Your task to perform on an android device: toggle location history Image 0: 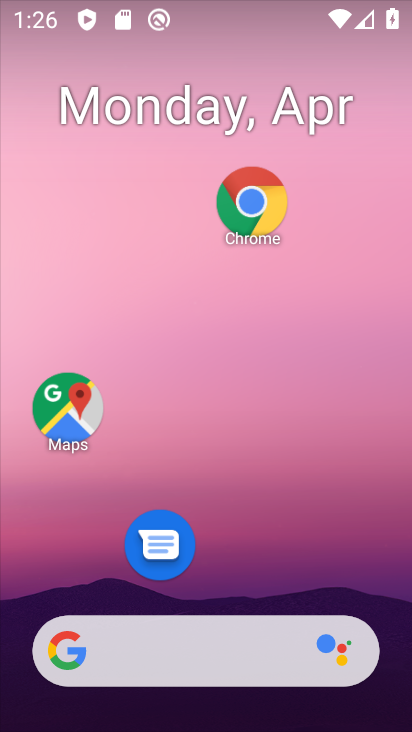
Step 0: drag from (95, 596) to (161, 208)
Your task to perform on an android device: toggle location history Image 1: 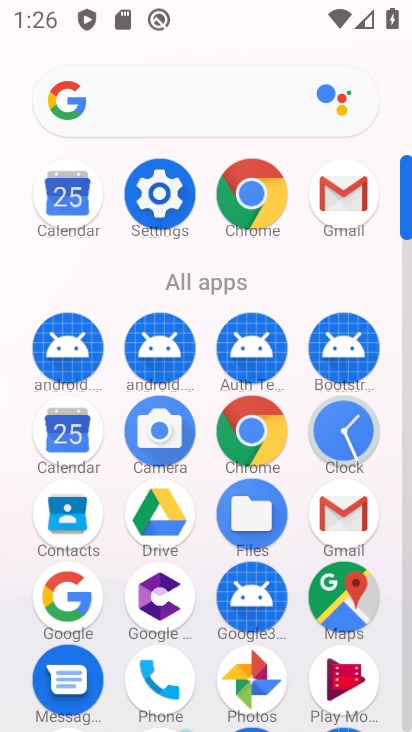
Step 1: click (160, 195)
Your task to perform on an android device: toggle location history Image 2: 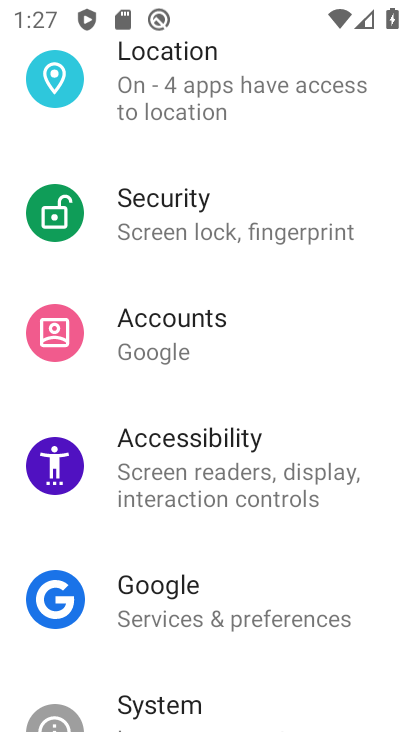
Step 2: drag from (108, 655) to (251, 299)
Your task to perform on an android device: toggle location history Image 3: 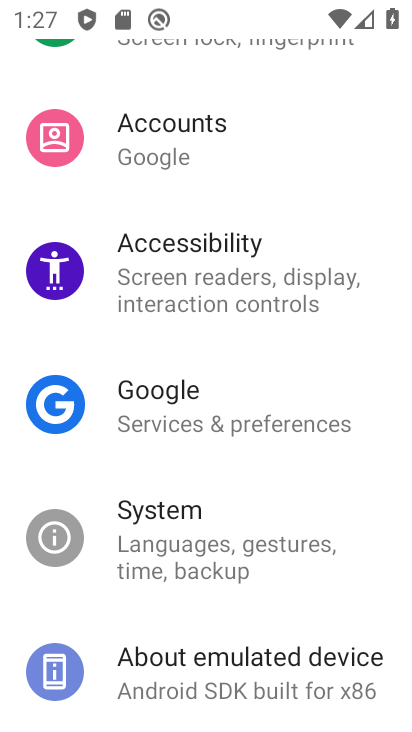
Step 3: drag from (179, 644) to (255, 342)
Your task to perform on an android device: toggle location history Image 4: 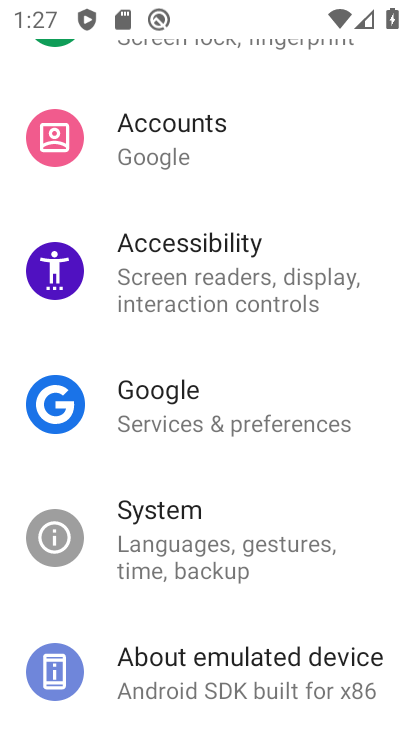
Step 4: drag from (189, 585) to (293, 129)
Your task to perform on an android device: toggle location history Image 5: 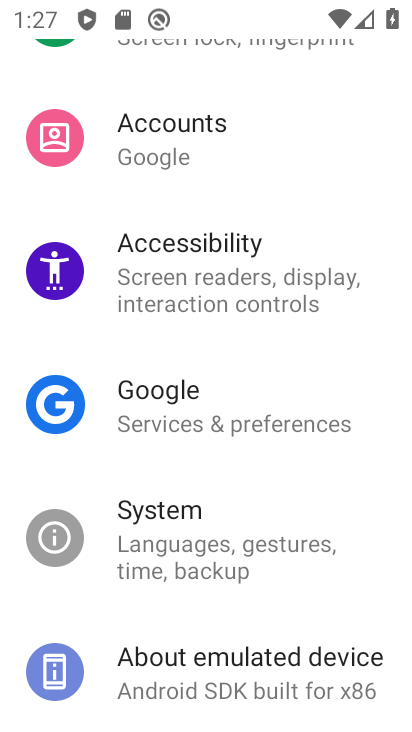
Step 5: drag from (202, 185) to (130, 638)
Your task to perform on an android device: toggle location history Image 6: 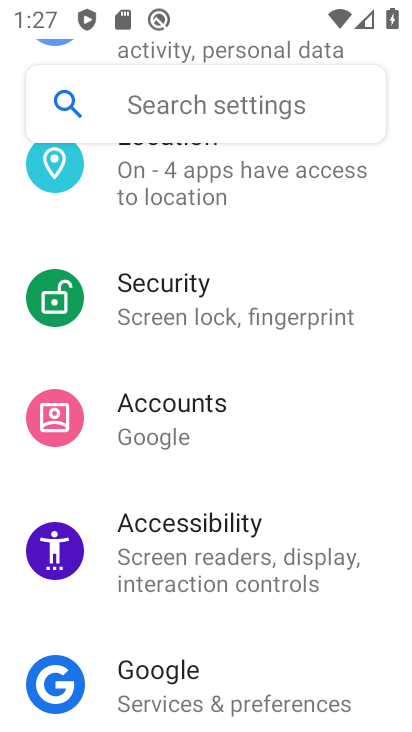
Step 6: drag from (151, 250) to (174, 659)
Your task to perform on an android device: toggle location history Image 7: 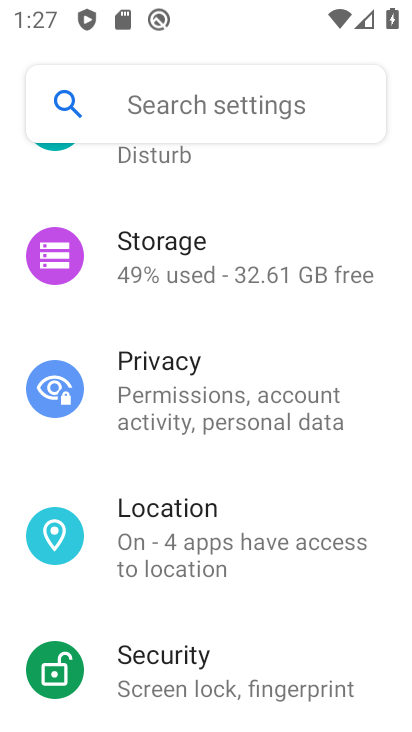
Step 7: click (206, 558)
Your task to perform on an android device: toggle location history Image 8: 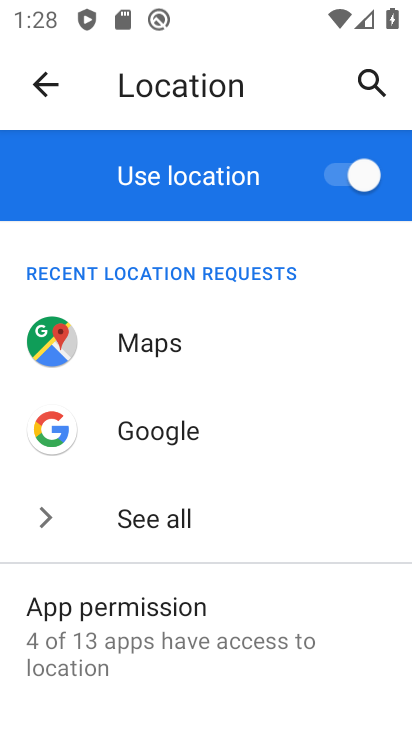
Step 8: drag from (167, 632) to (260, 129)
Your task to perform on an android device: toggle location history Image 9: 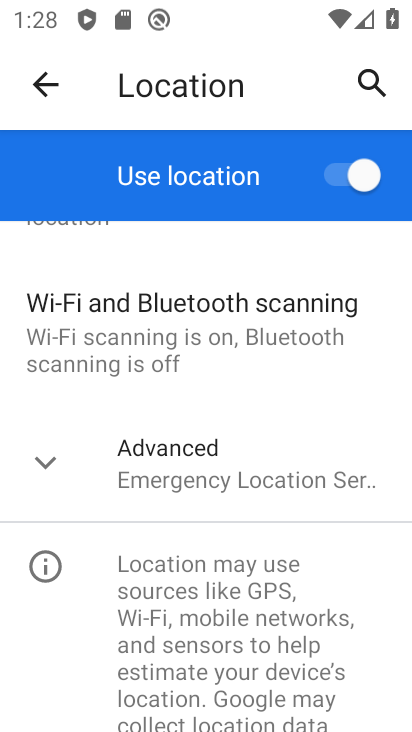
Step 9: drag from (155, 666) to (176, 237)
Your task to perform on an android device: toggle location history Image 10: 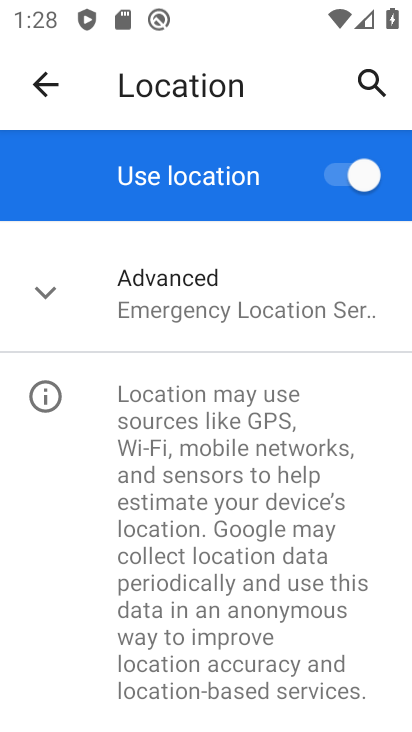
Step 10: click (200, 297)
Your task to perform on an android device: toggle location history Image 11: 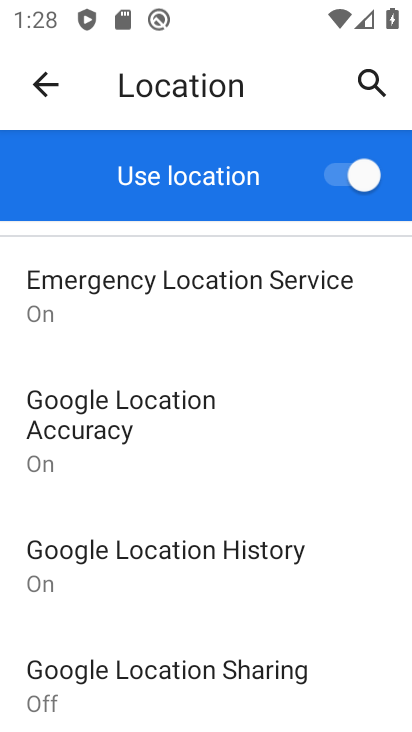
Step 11: click (124, 565)
Your task to perform on an android device: toggle location history Image 12: 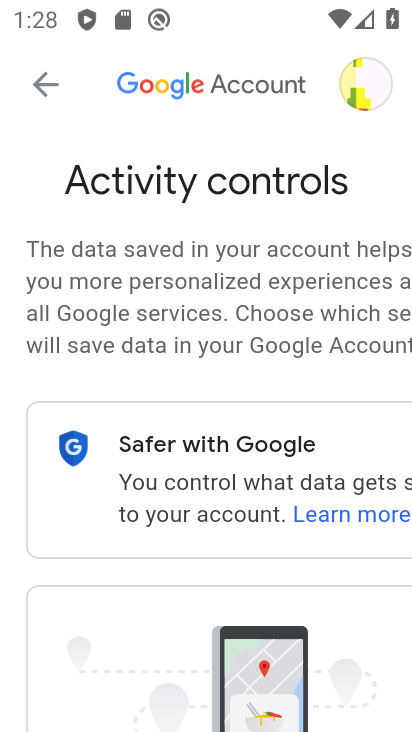
Step 12: drag from (117, 644) to (219, 133)
Your task to perform on an android device: toggle location history Image 13: 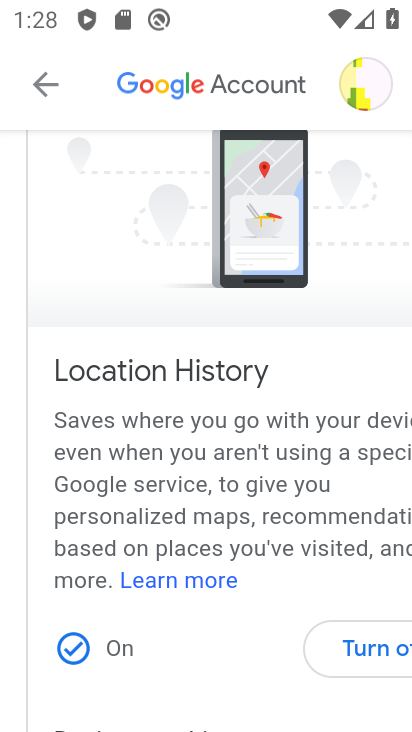
Step 13: drag from (157, 594) to (198, 120)
Your task to perform on an android device: toggle location history Image 14: 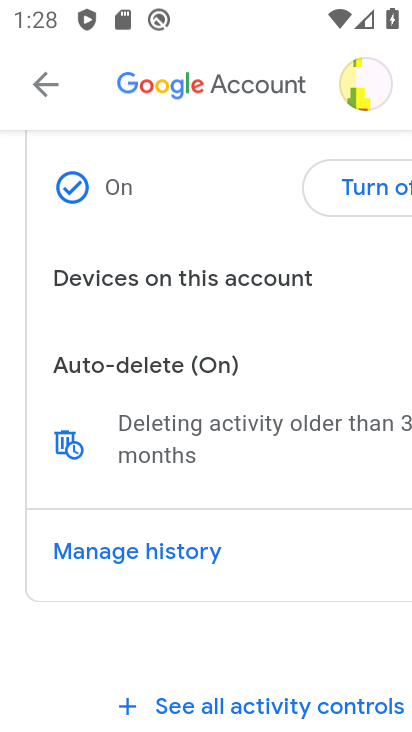
Step 14: click (363, 191)
Your task to perform on an android device: toggle location history Image 15: 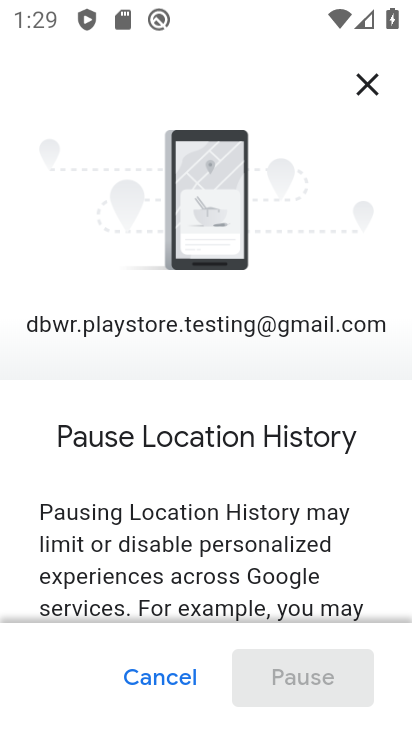
Step 15: drag from (119, 603) to (271, 1)
Your task to perform on an android device: toggle location history Image 16: 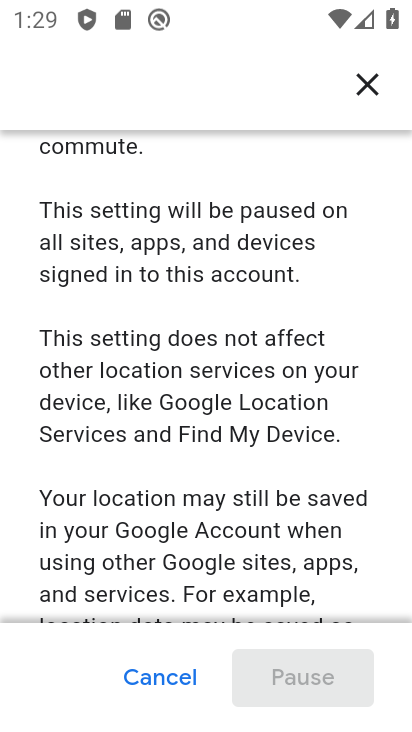
Step 16: drag from (227, 461) to (278, 59)
Your task to perform on an android device: toggle location history Image 17: 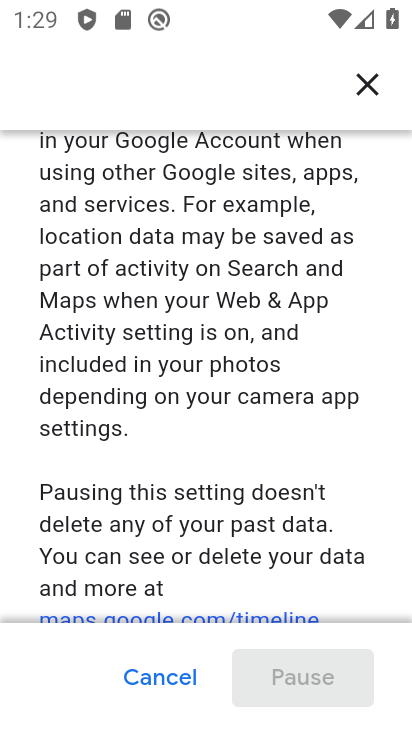
Step 17: drag from (268, 365) to (272, 96)
Your task to perform on an android device: toggle location history Image 18: 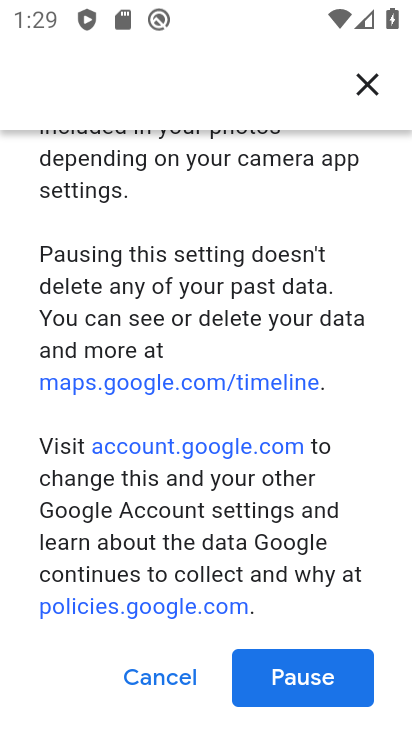
Step 18: click (279, 646)
Your task to perform on an android device: toggle location history Image 19: 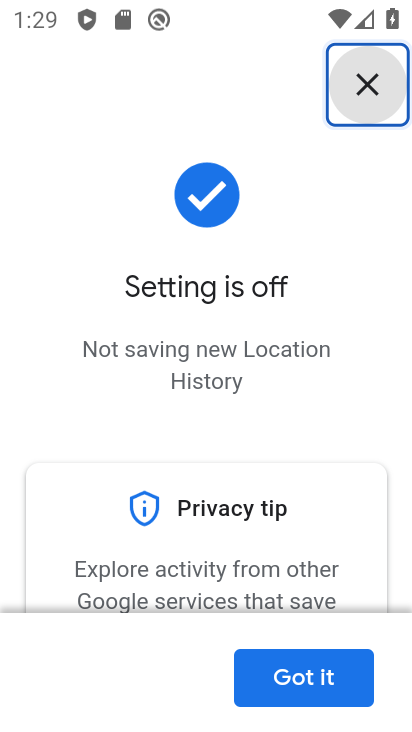
Step 19: click (337, 666)
Your task to perform on an android device: toggle location history Image 20: 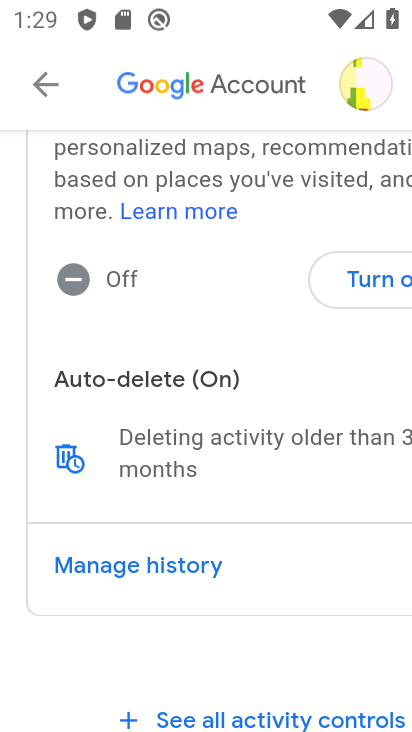
Step 20: task complete